Your task to perform on an android device: install app "Calculator" Image 0: 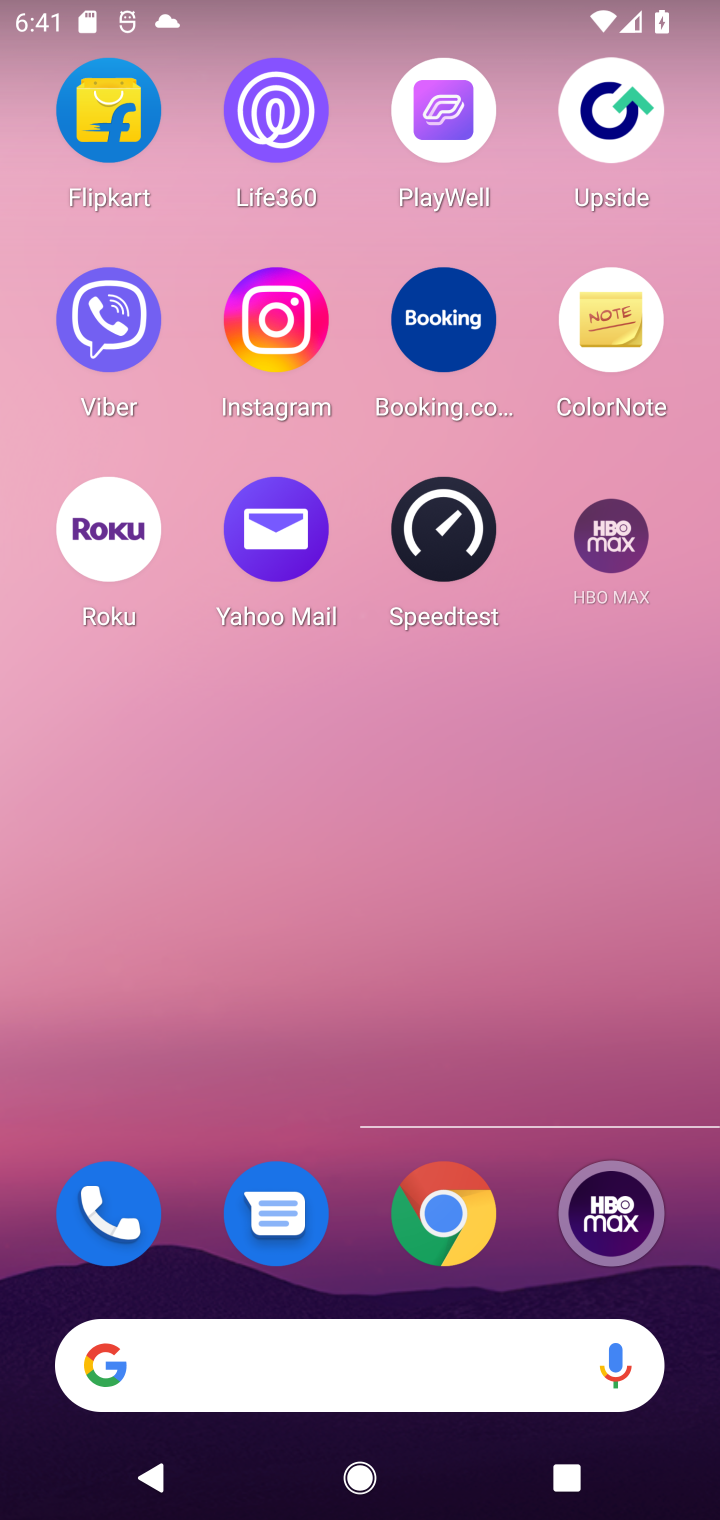
Step 0: press home button
Your task to perform on an android device: install app "Calculator" Image 1: 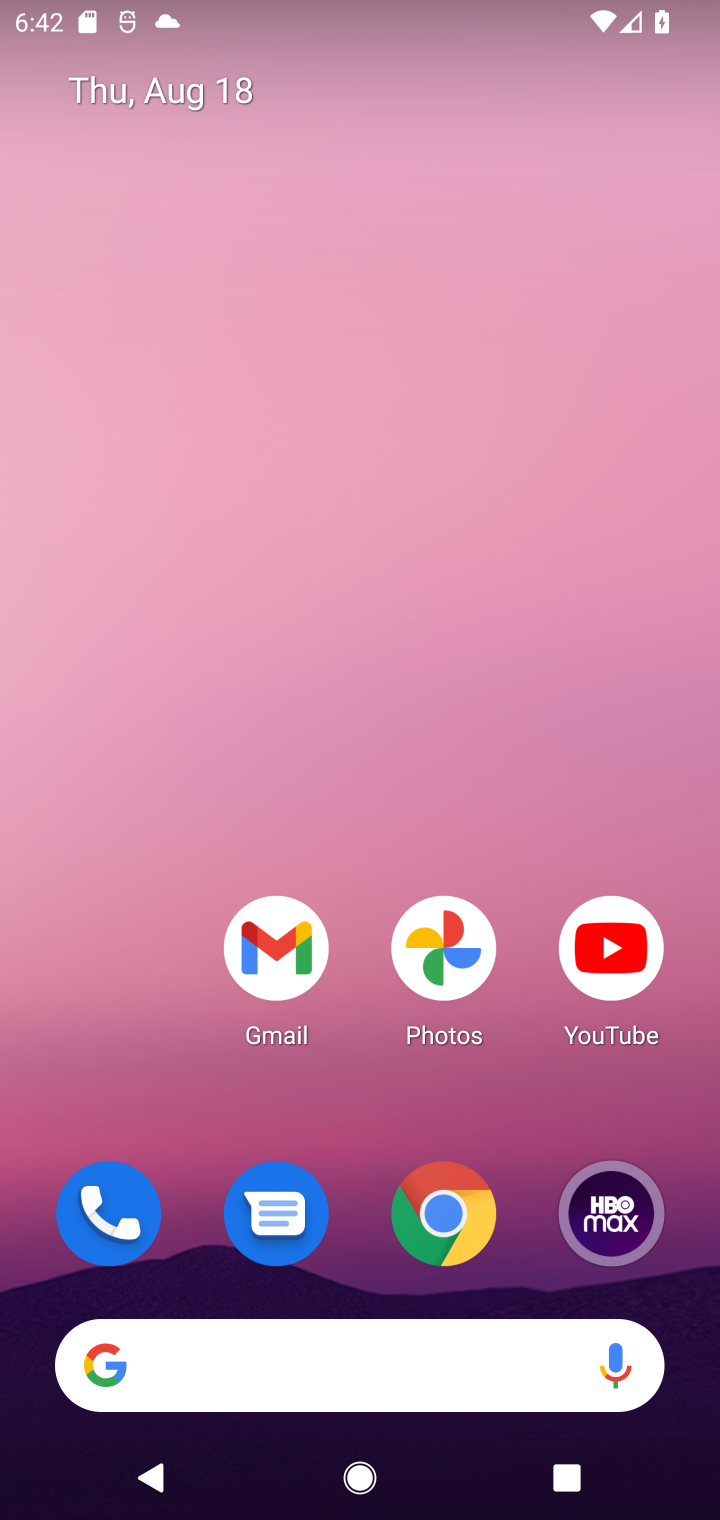
Step 1: drag from (348, 1173) to (500, 46)
Your task to perform on an android device: install app "Calculator" Image 2: 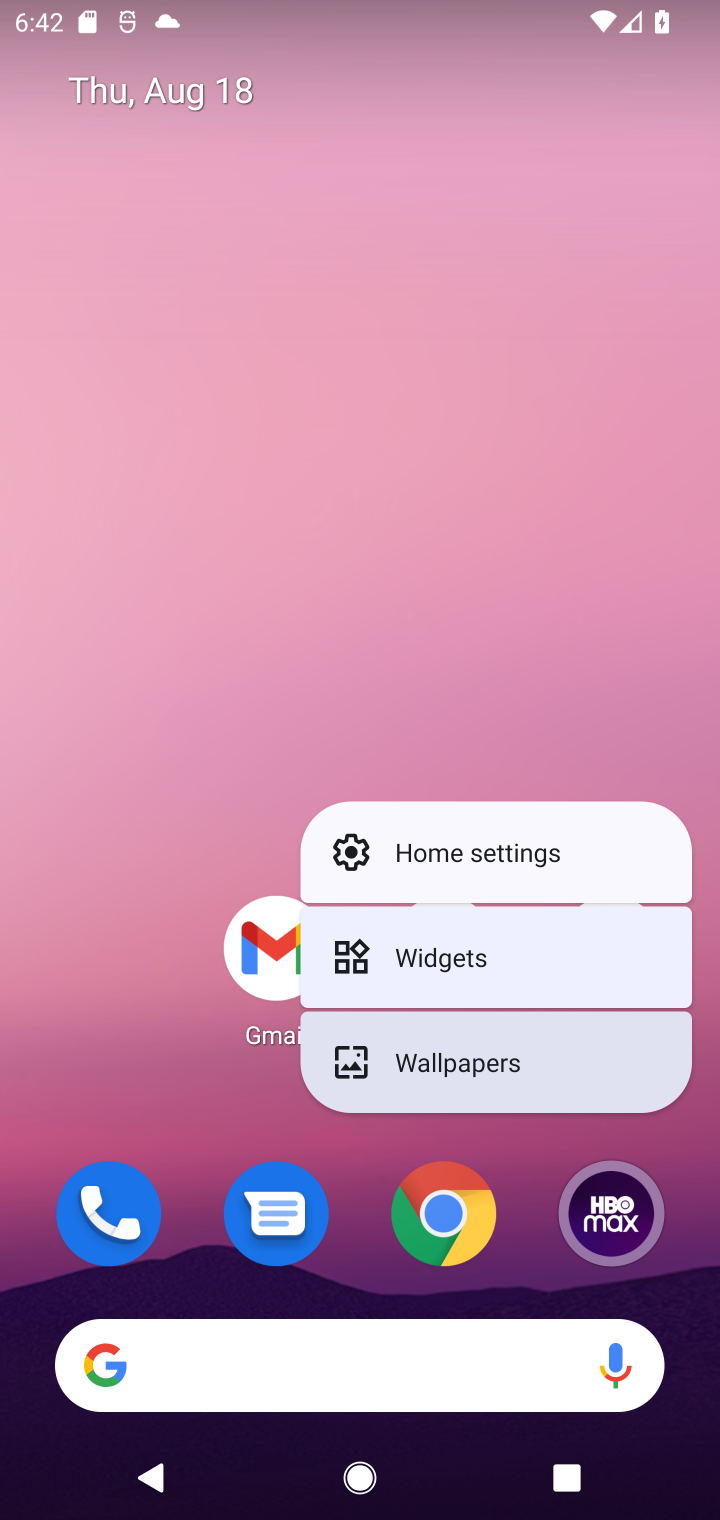
Step 2: click (123, 880)
Your task to perform on an android device: install app "Calculator" Image 3: 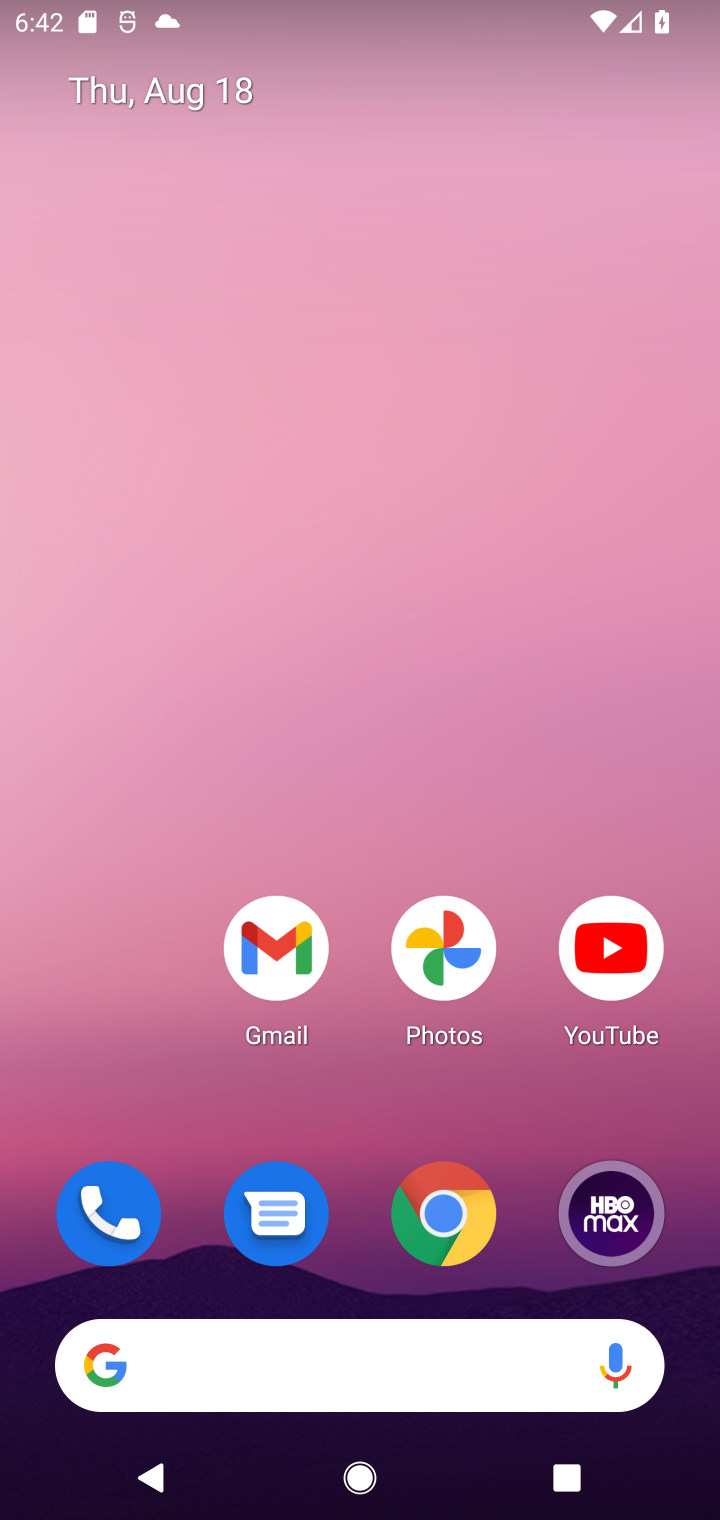
Step 3: drag from (229, 1116) to (279, 29)
Your task to perform on an android device: install app "Calculator" Image 4: 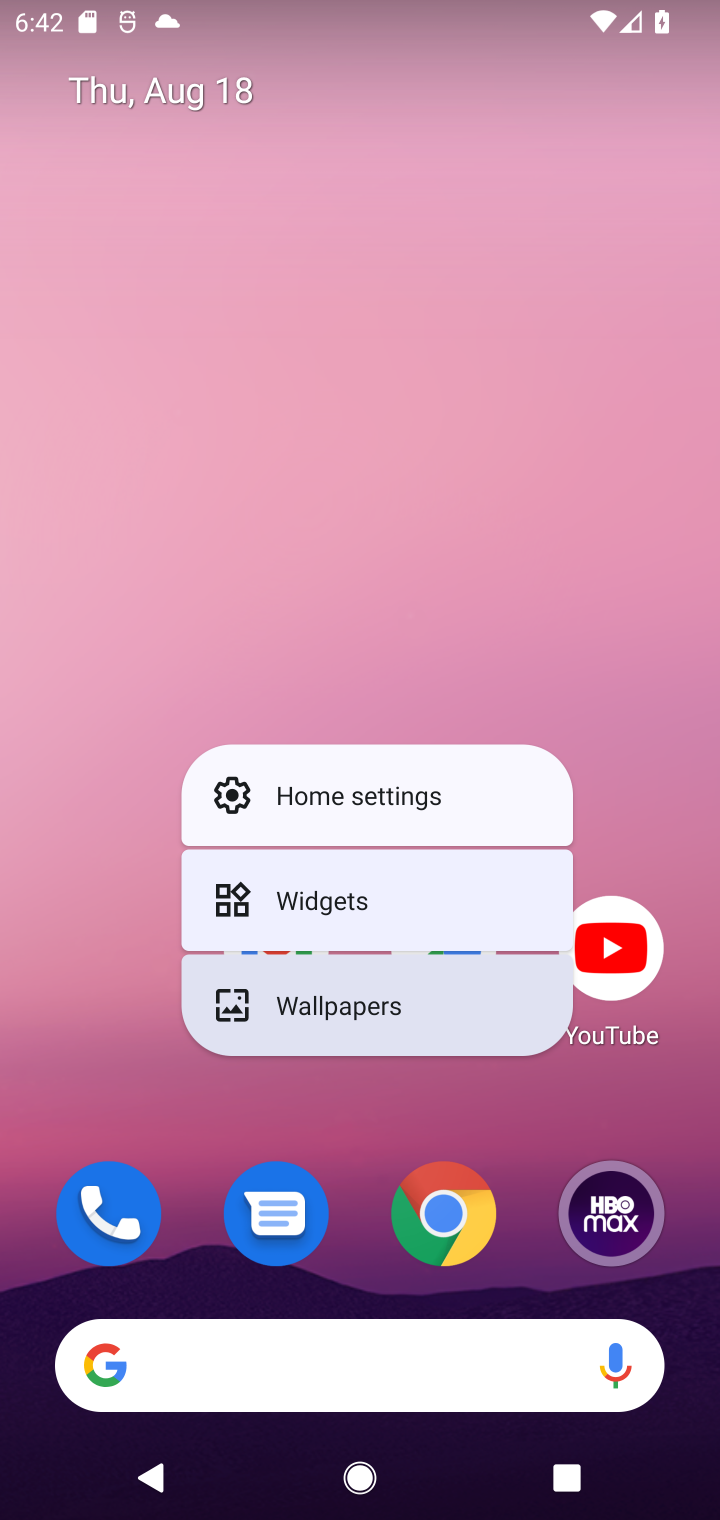
Step 4: click (385, 1155)
Your task to perform on an android device: install app "Calculator" Image 5: 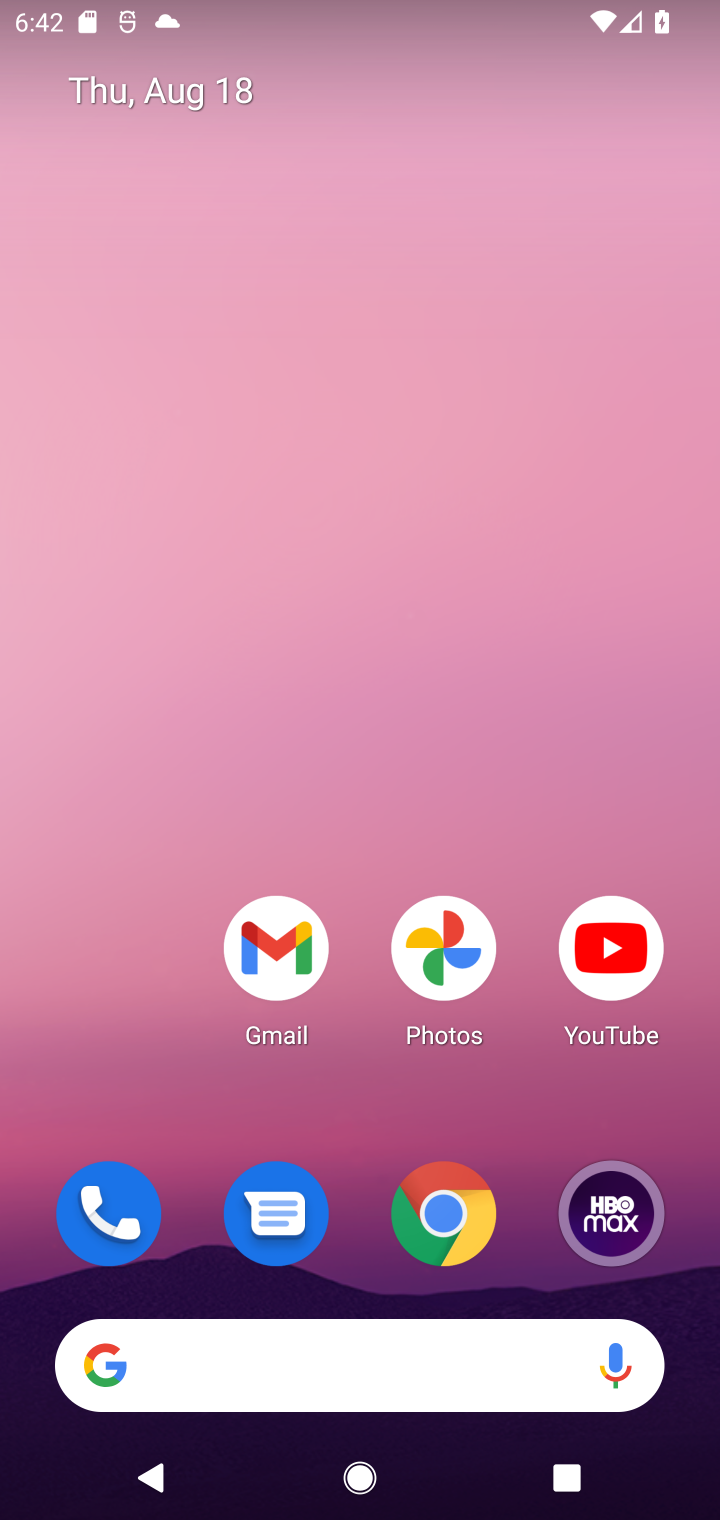
Step 5: drag from (375, 985) to (349, 14)
Your task to perform on an android device: install app "Calculator" Image 6: 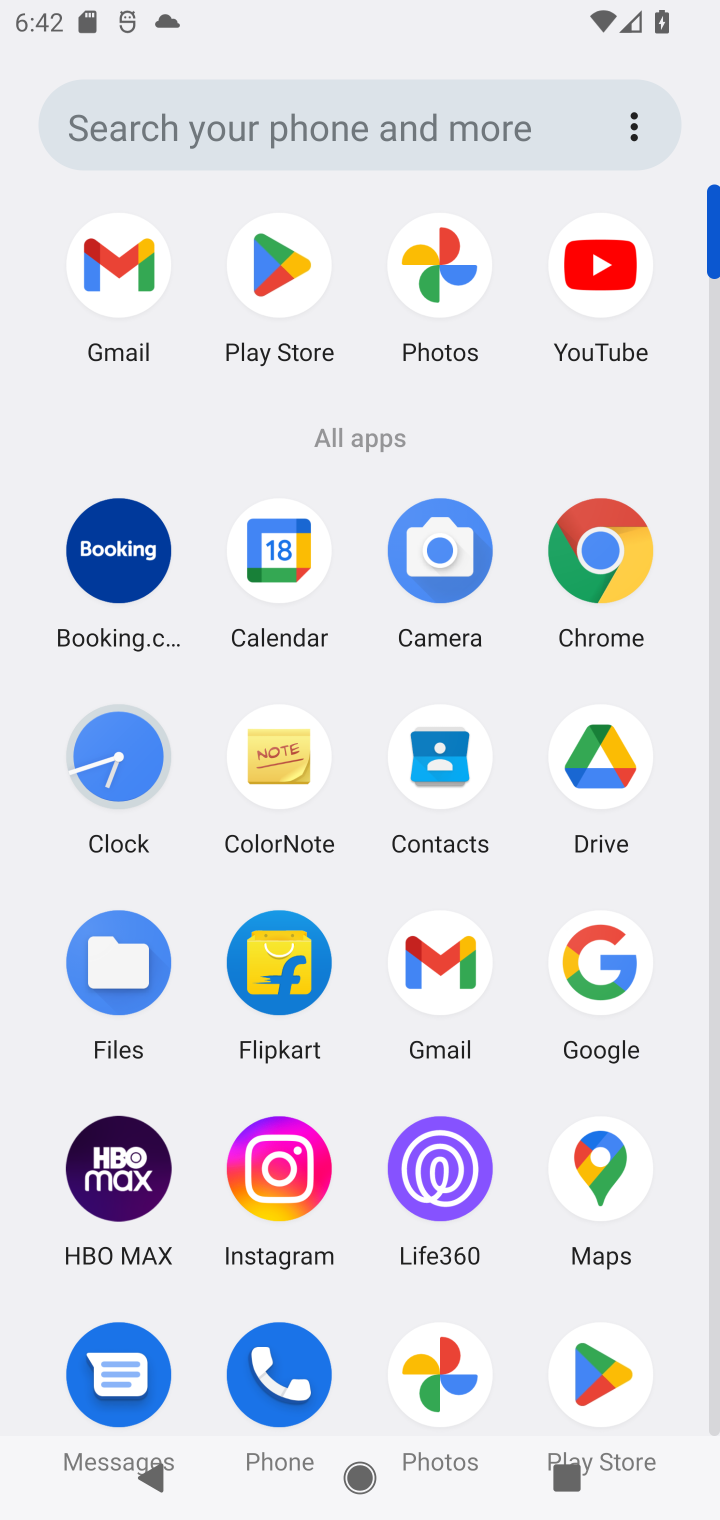
Step 6: click (275, 274)
Your task to perform on an android device: install app "Calculator" Image 7: 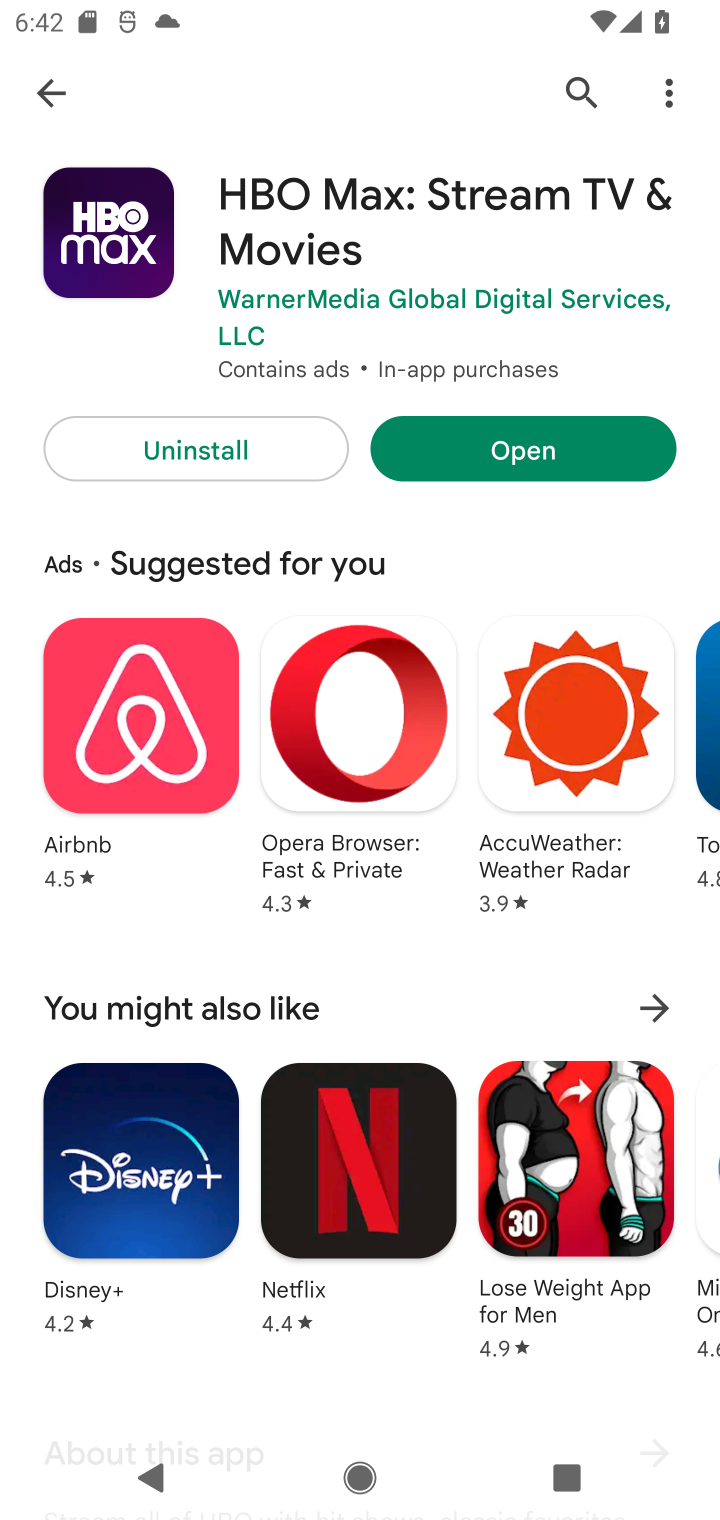
Step 7: click (570, 93)
Your task to perform on an android device: install app "Calculator" Image 8: 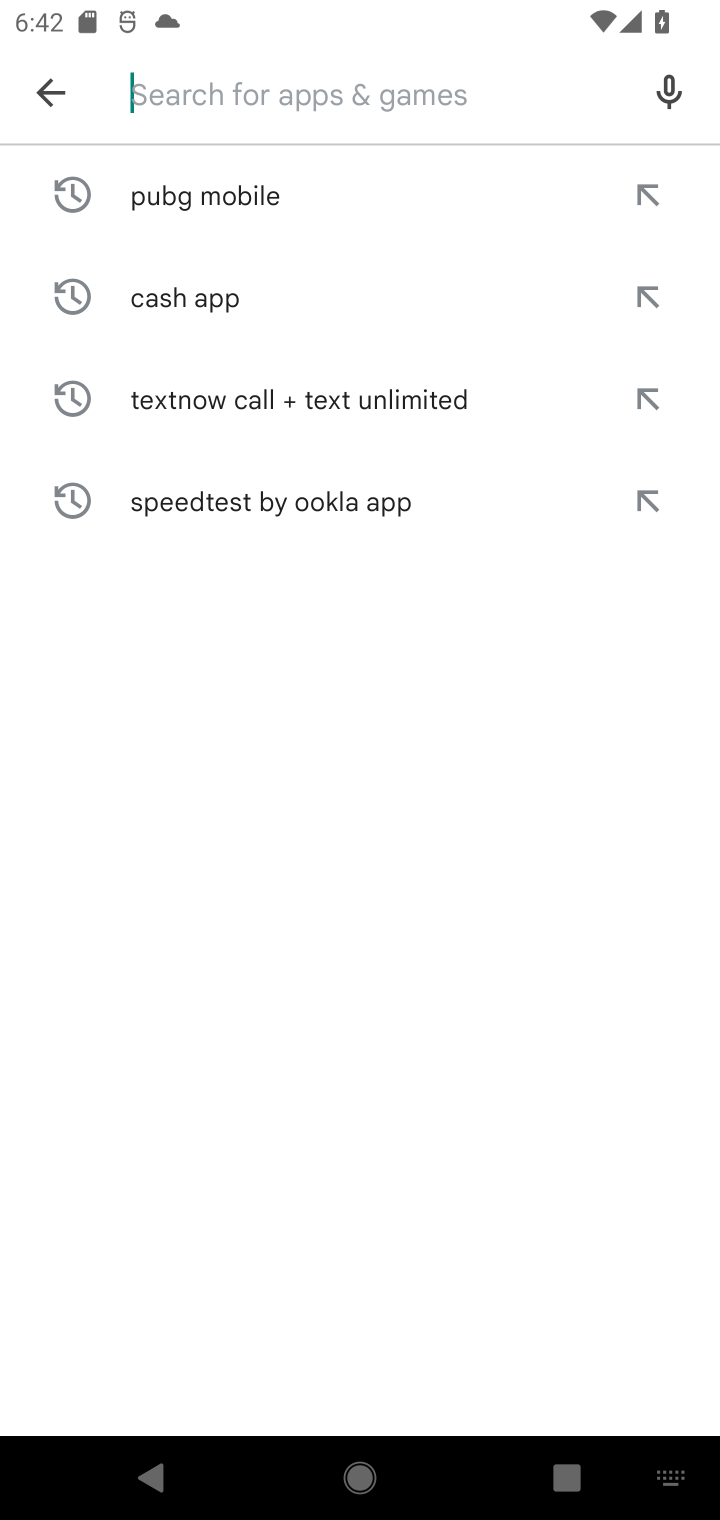
Step 8: type "Calculator"
Your task to perform on an android device: install app "Calculator" Image 9: 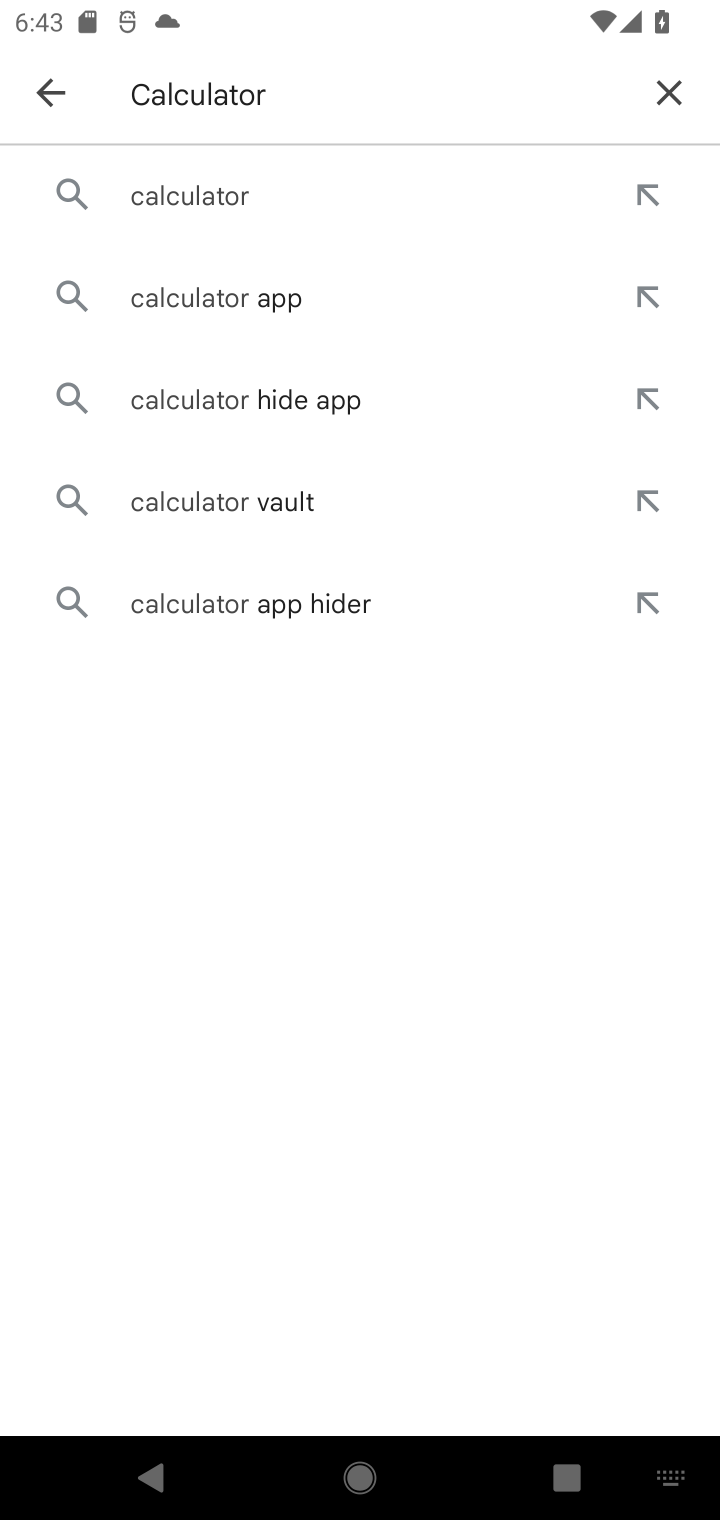
Step 9: click (322, 194)
Your task to perform on an android device: install app "Calculator" Image 10: 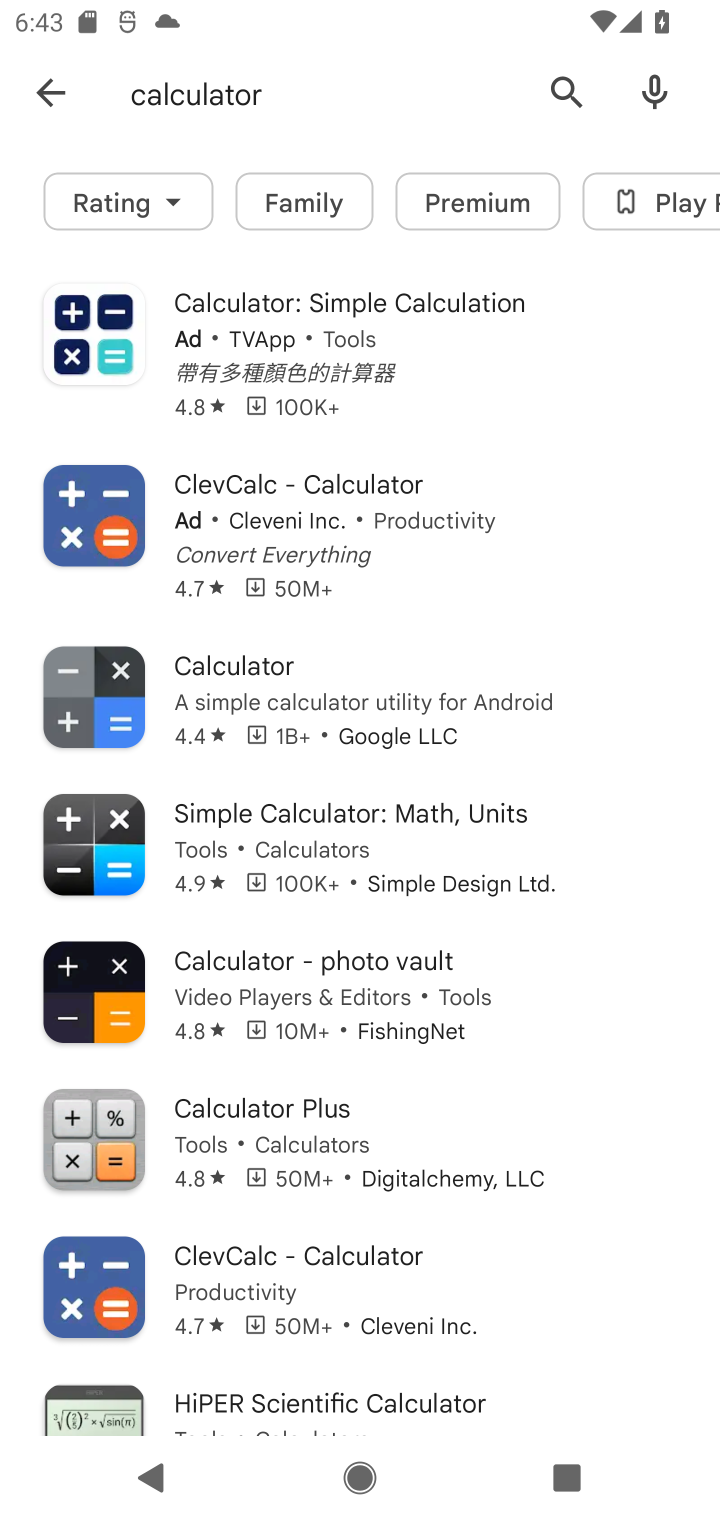
Step 10: click (300, 308)
Your task to perform on an android device: install app "Calculator" Image 11: 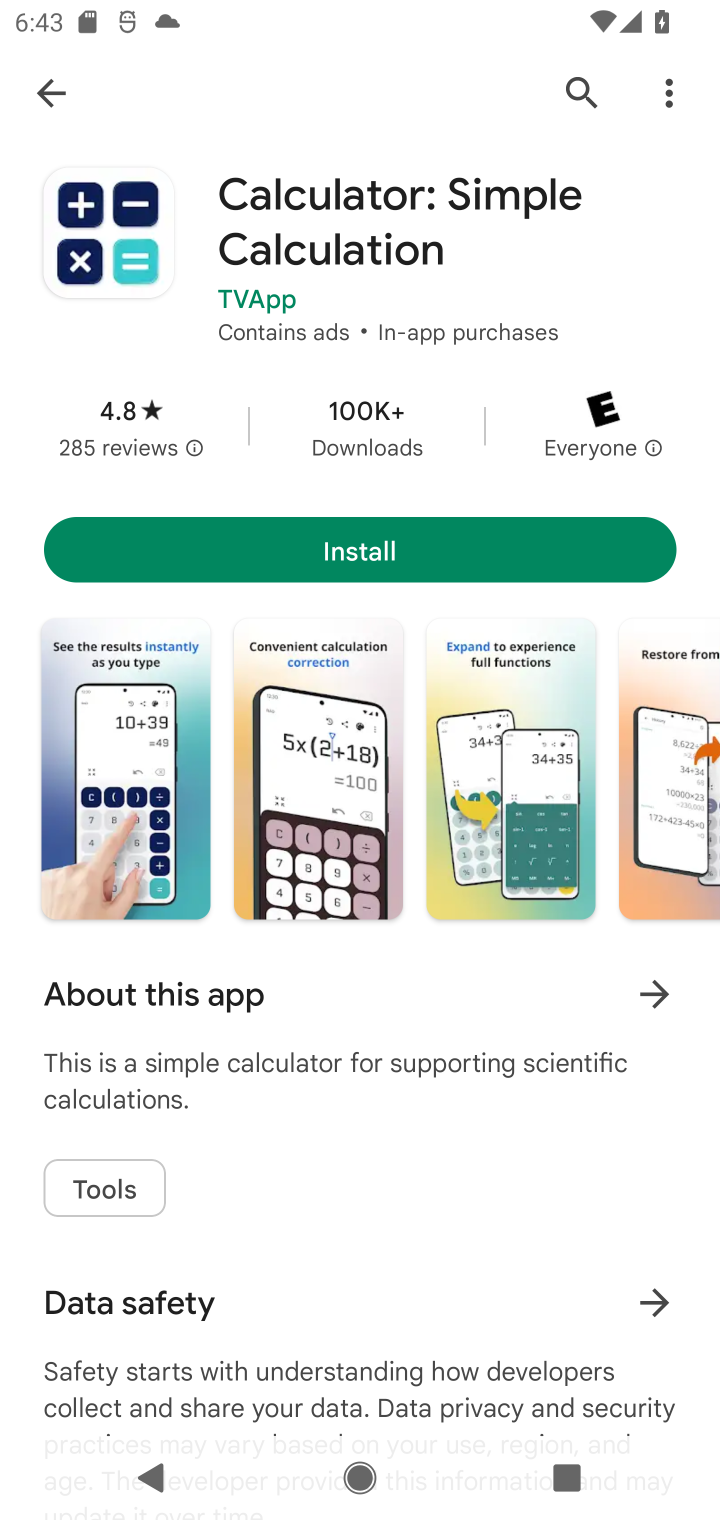
Step 11: click (370, 536)
Your task to perform on an android device: install app "Calculator" Image 12: 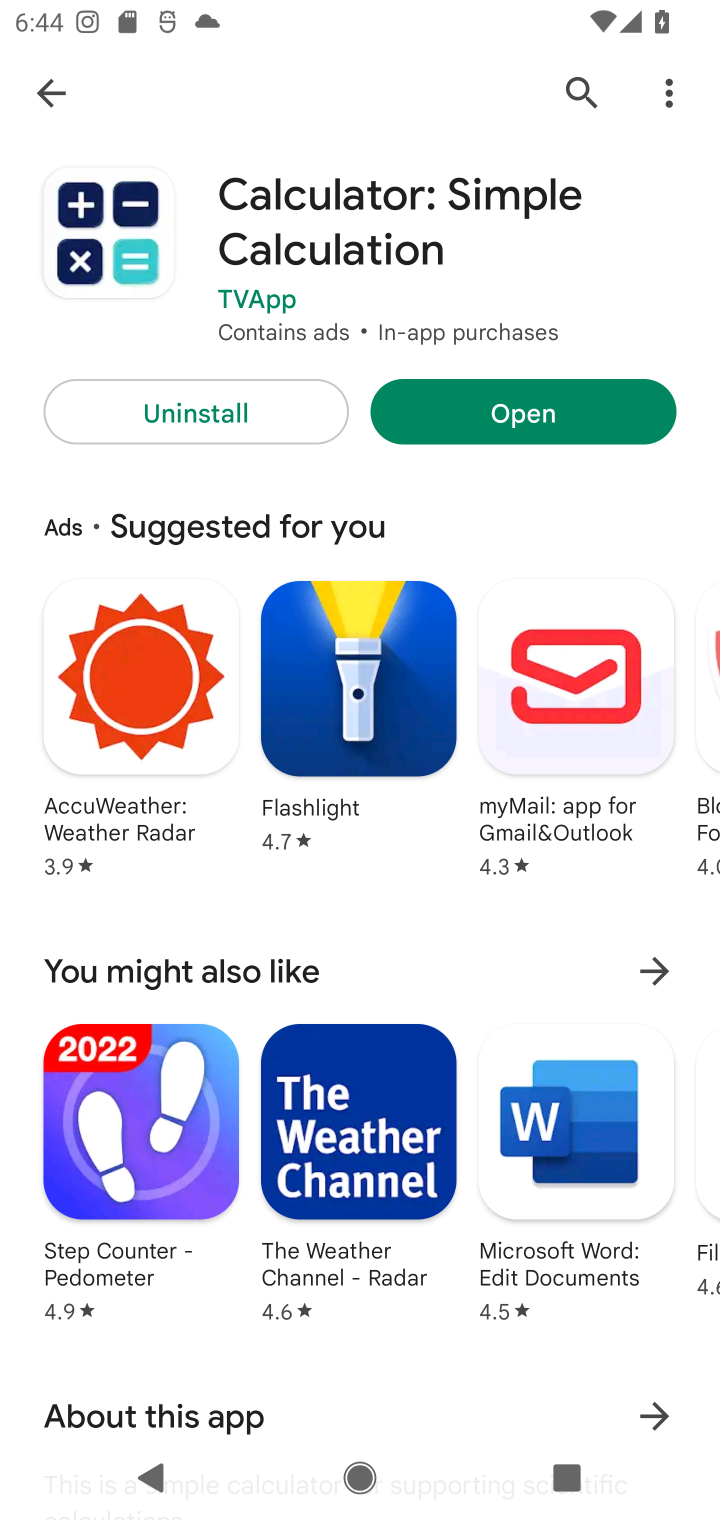
Step 12: click (538, 409)
Your task to perform on an android device: install app "Calculator" Image 13: 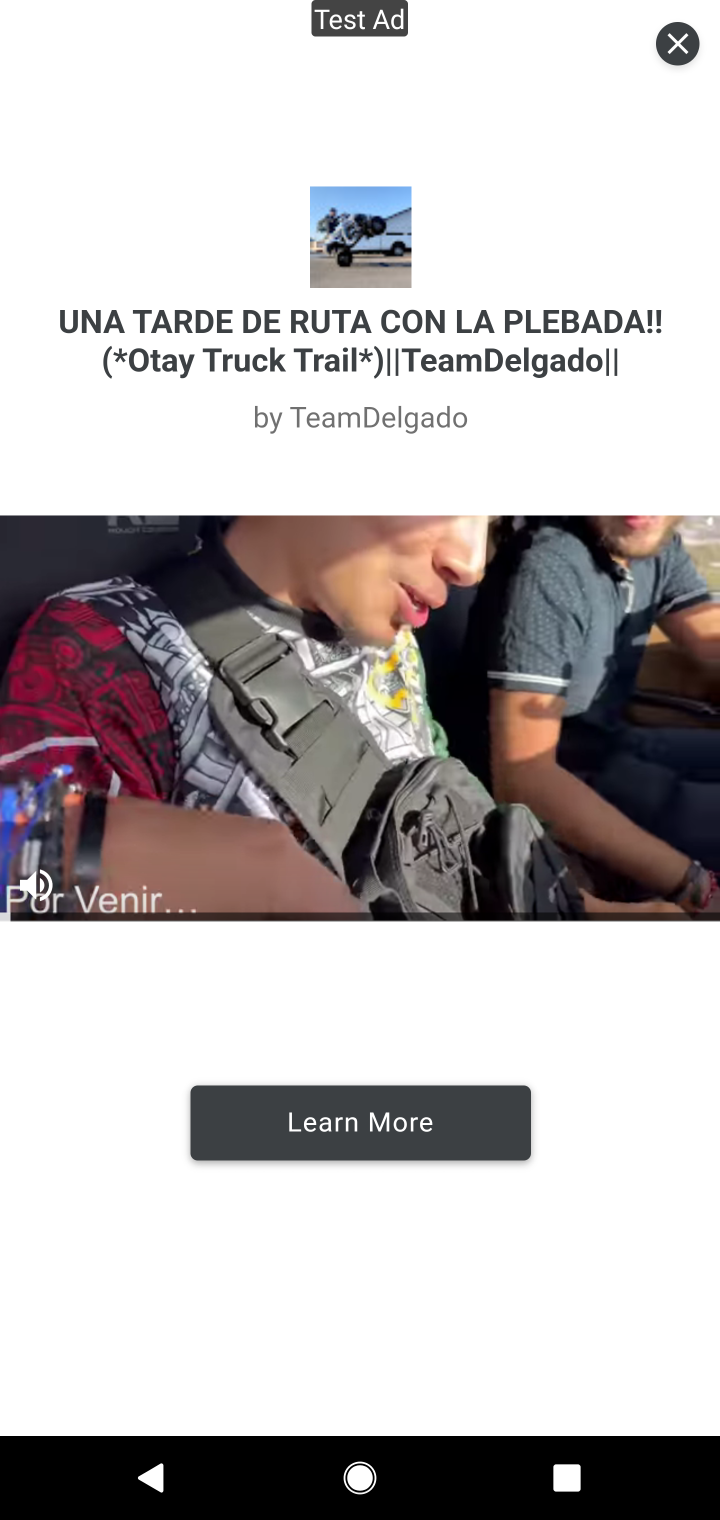
Step 13: click (670, 42)
Your task to perform on an android device: install app "Calculator" Image 14: 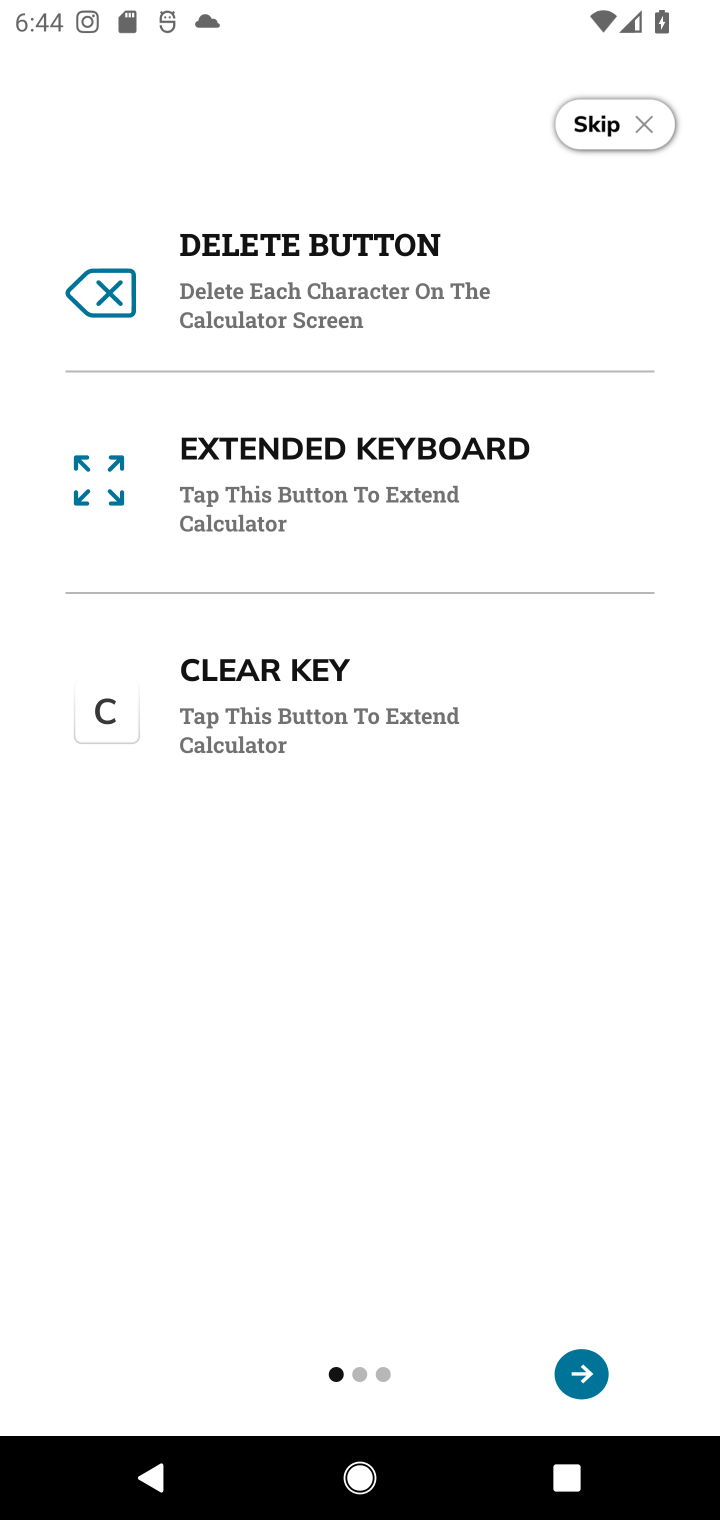
Step 14: click (627, 123)
Your task to perform on an android device: install app "Calculator" Image 15: 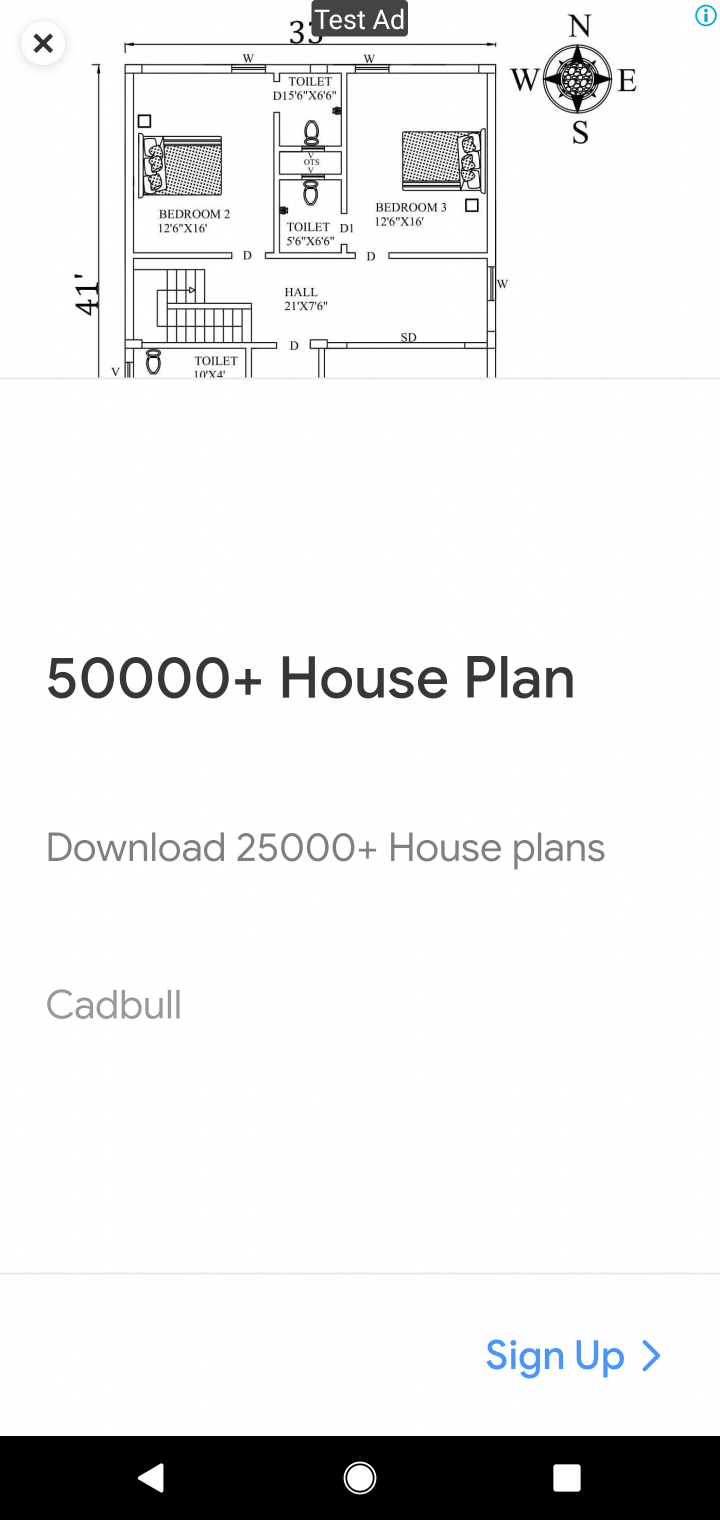
Step 15: click (607, 1356)
Your task to perform on an android device: install app "Calculator" Image 16: 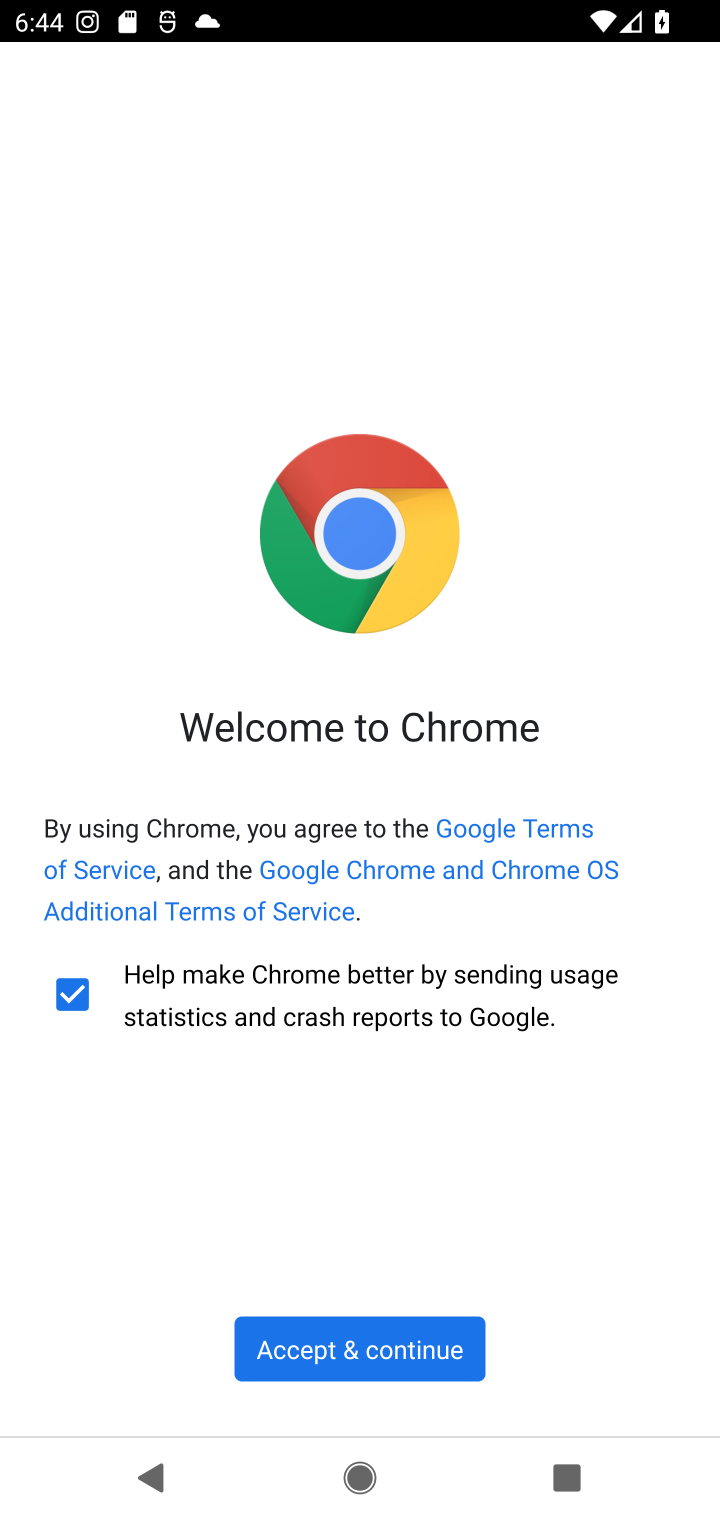
Step 16: task complete